Your task to perform on an android device: Open Amazon Image 0: 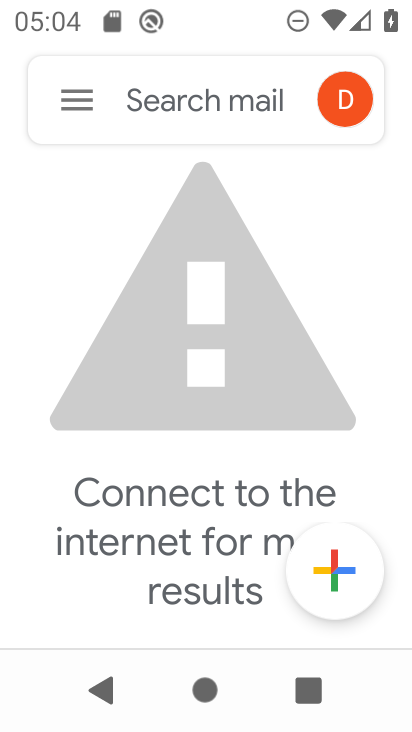
Step 0: press home button
Your task to perform on an android device: Open Amazon Image 1: 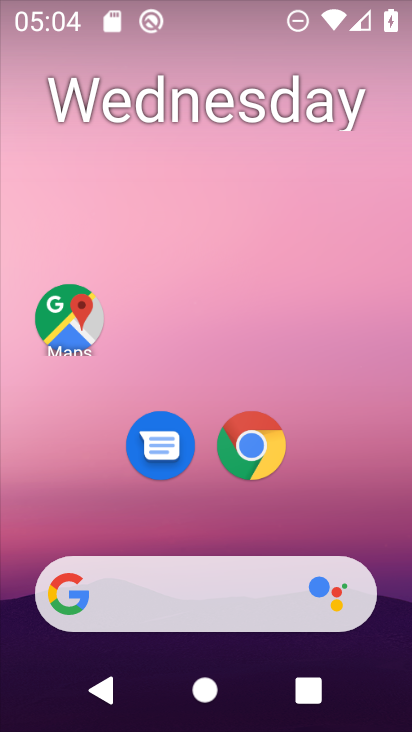
Step 1: click (247, 444)
Your task to perform on an android device: Open Amazon Image 2: 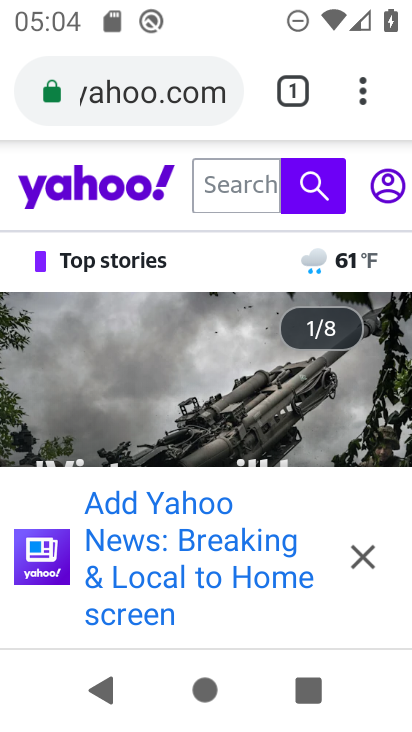
Step 2: click (280, 98)
Your task to perform on an android device: Open Amazon Image 3: 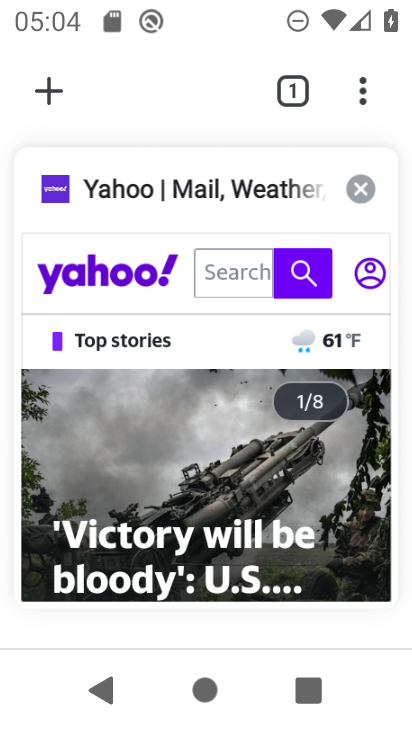
Step 3: click (58, 101)
Your task to perform on an android device: Open Amazon Image 4: 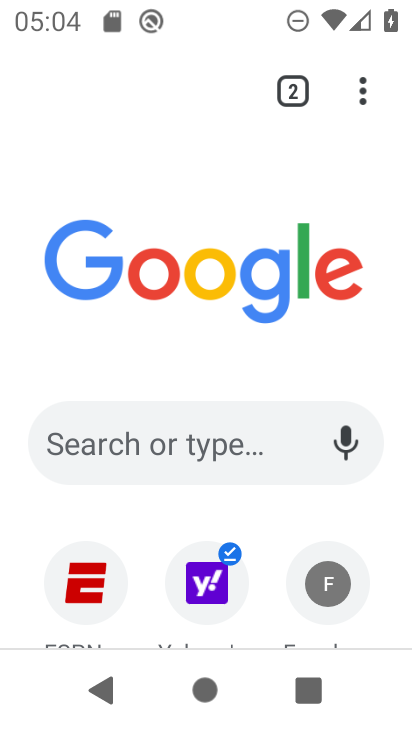
Step 4: drag from (244, 522) to (245, 133)
Your task to perform on an android device: Open Amazon Image 5: 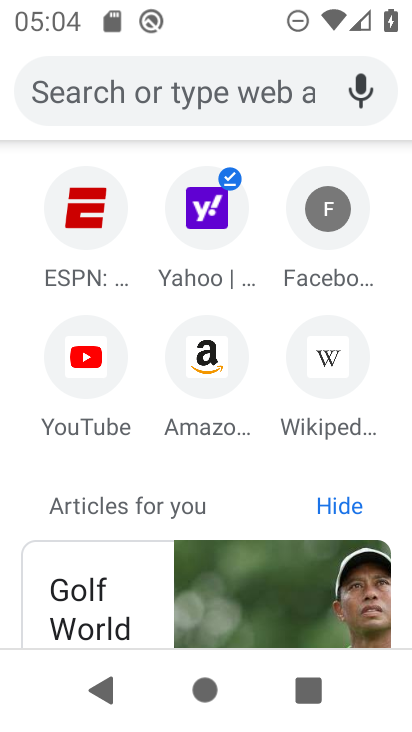
Step 5: click (204, 374)
Your task to perform on an android device: Open Amazon Image 6: 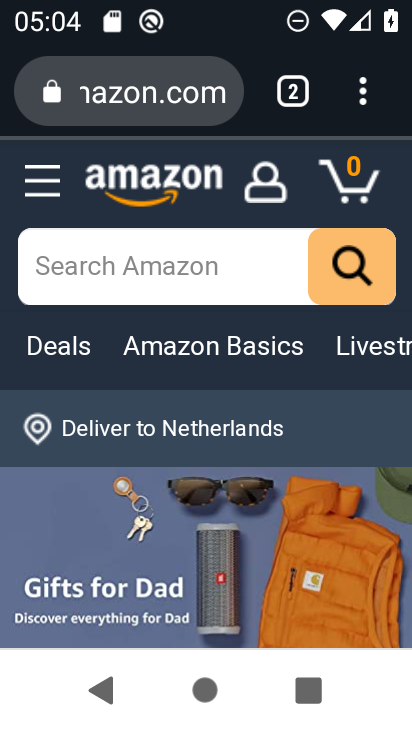
Step 6: task complete